Your task to perform on an android device: Go to eBay Image 0: 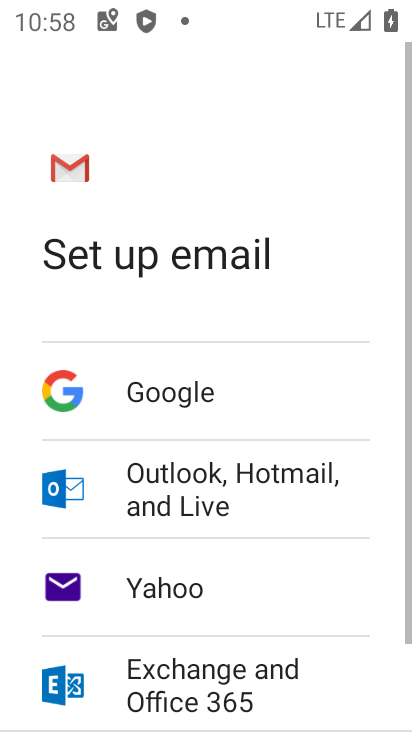
Step 0: press home button
Your task to perform on an android device: Go to eBay Image 1: 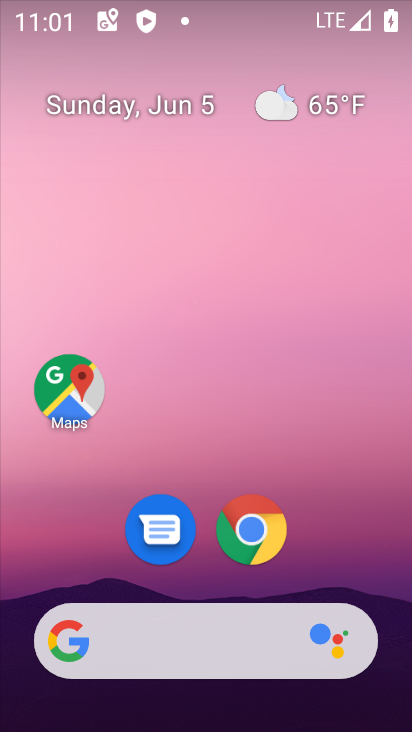
Step 1: click (262, 651)
Your task to perform on an android device: Go to eBay Image 2: 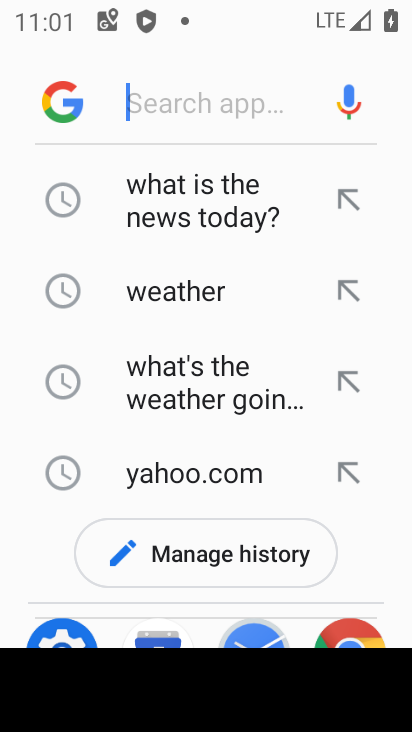
Step 2: type "ebay "
Your task to perform on an android device: Go to eBay Image 3: 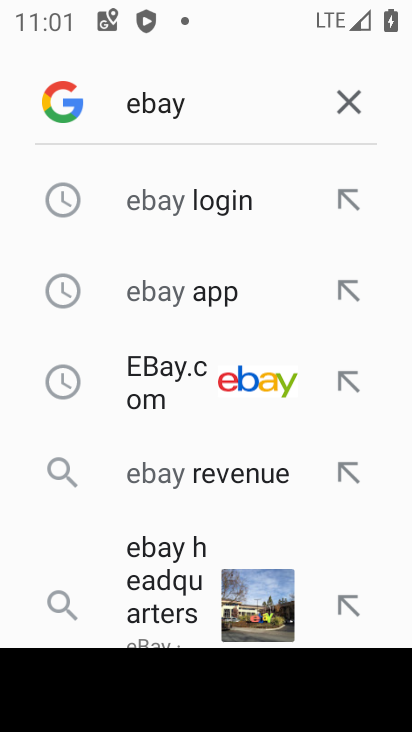
Step 3: click (273, 388)
Your task to perform on an android device: Go to eBay Image 4: 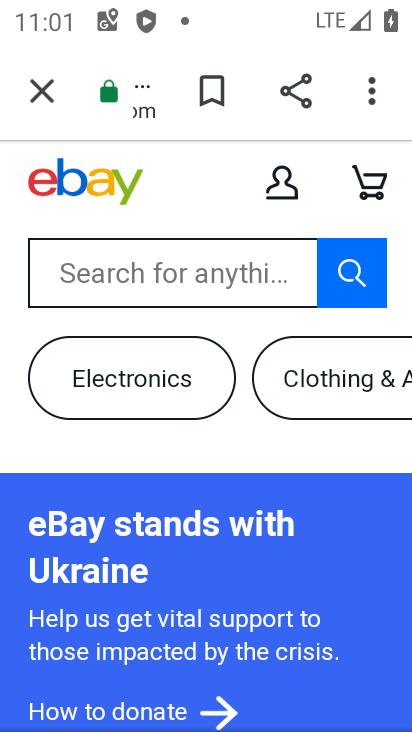
Step 4: task complete